Your task to perform on an android device: turn on location history Image 0: 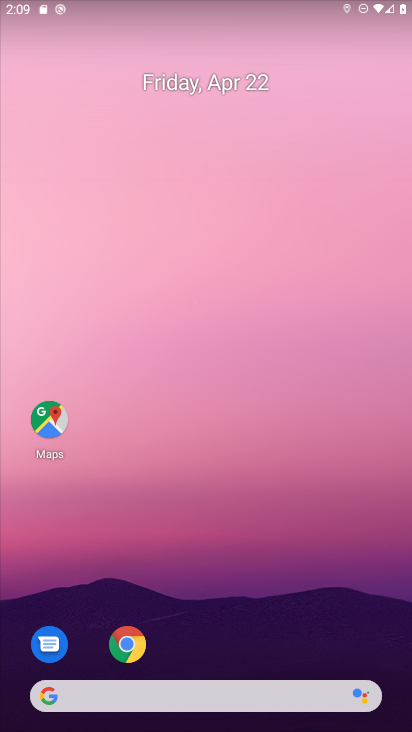
Step 0: drag from (259, 659) to (247, 196)
Your task to perform on an android device: turn on location history Image 1: 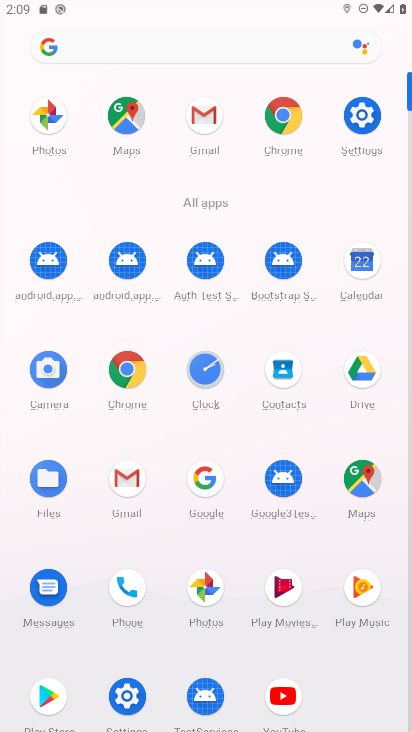
Step 1: click (128, 686)
Your task to perform on an android device: turn on location history Image 2: 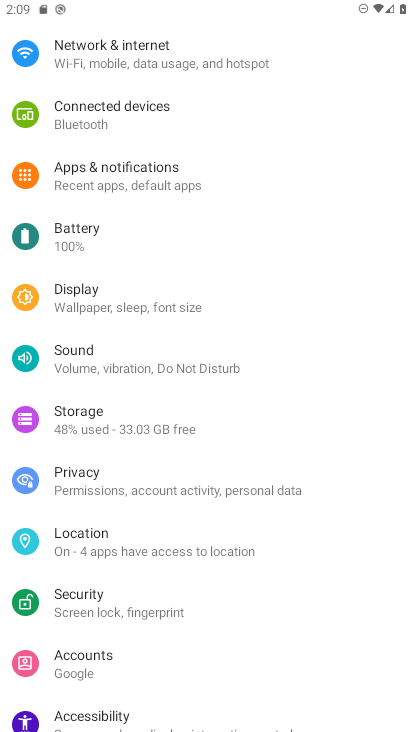
Step 2: click (113, 540)
Your task to perform on an android device: turn on location history Image 3: 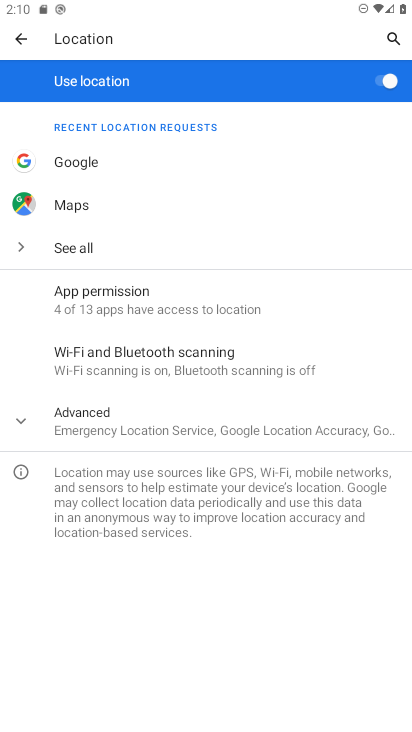
Step 3: click (129, 429)
Your task to perform on an android device: turn on location history Image 4: 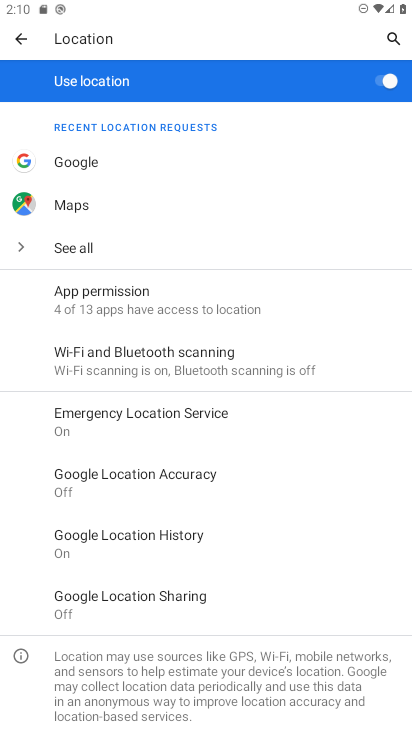
Step 4: click (162, 538)
Your task to perform on an android device: turn on location history Image 5: 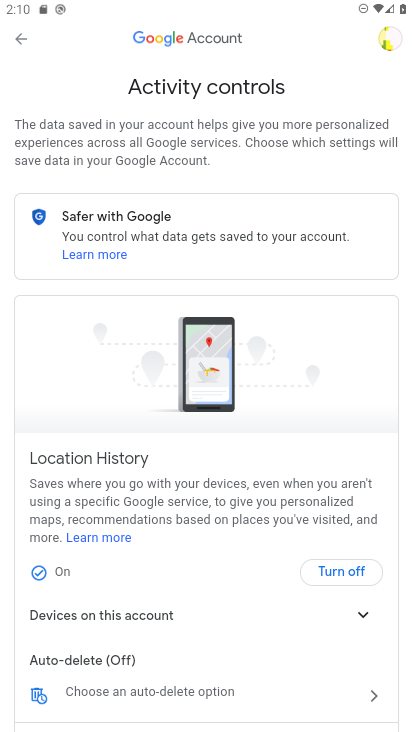
Step 5: click (336, 570)
Your task to perform on an android device: turn on location history Image 6: 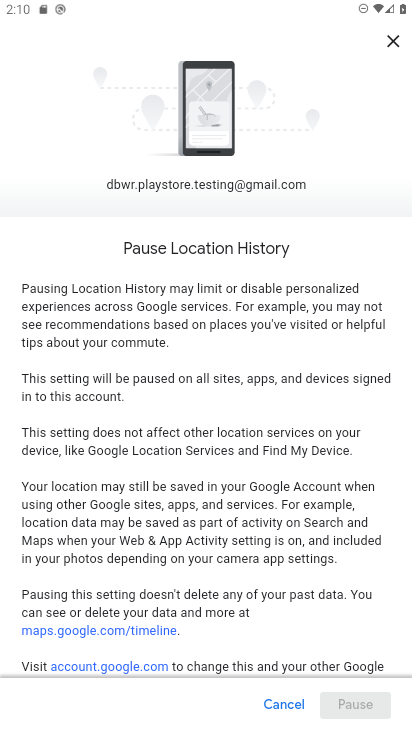
Step 6: click (285, 700)
Your task to perform on an android device: turn on location history Image 7: 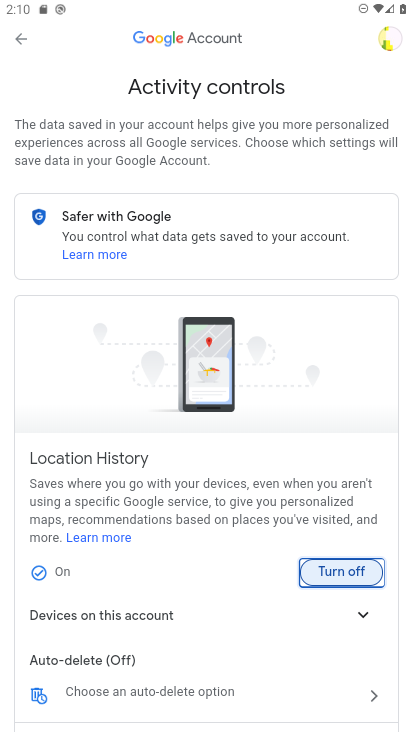
Step 7: task complete